Your task to perform on an android device: turn off improve location accuracy Image 0: 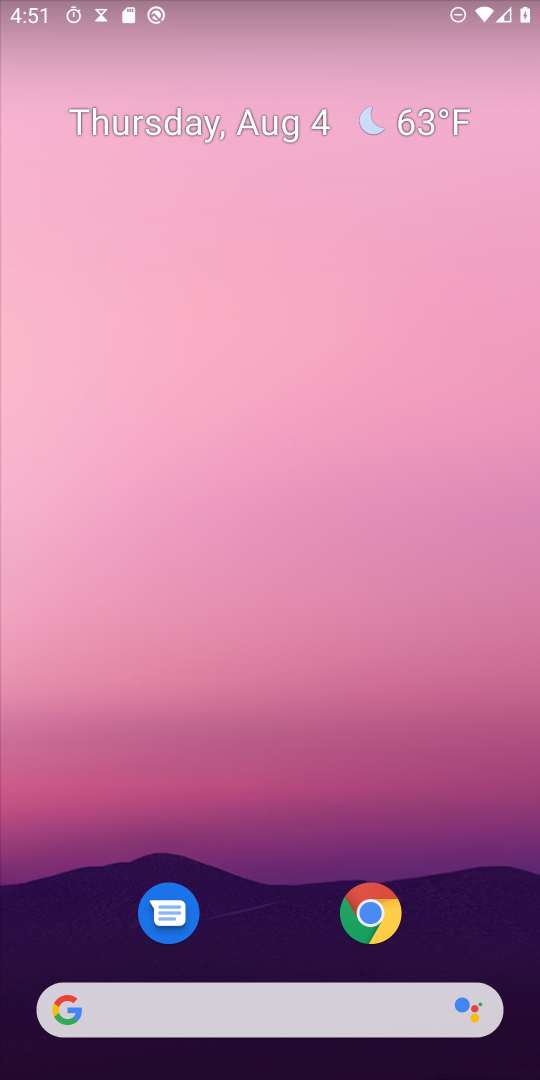
Step 0: drag from (340, 1001) to (367, 33)
Your task to perform on an android device: turn off improve location accuracy Image 1: 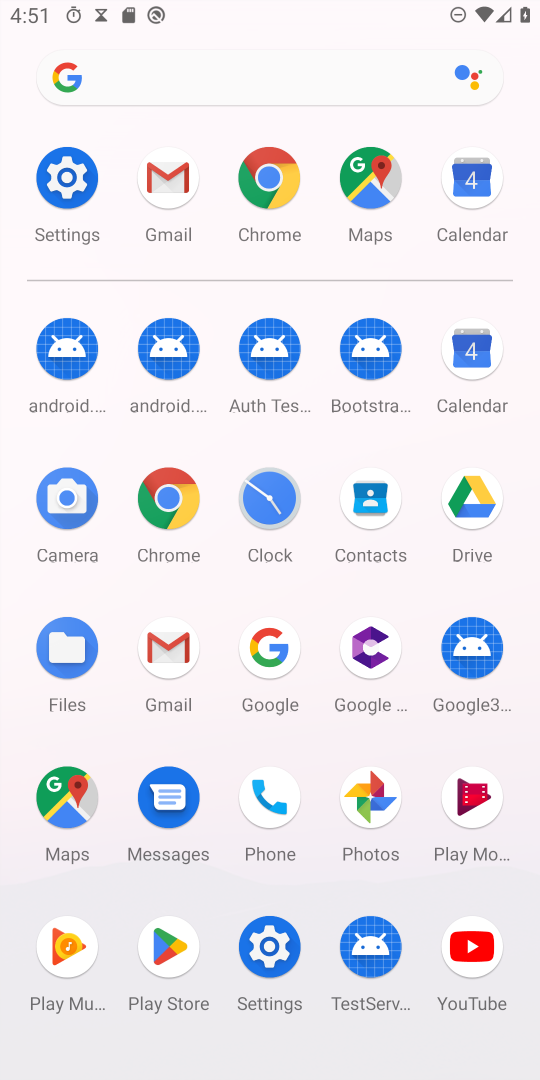
Step 1: click (264, 933)
Your task to perform on an android device: turn off improve location accuracy Image 2: 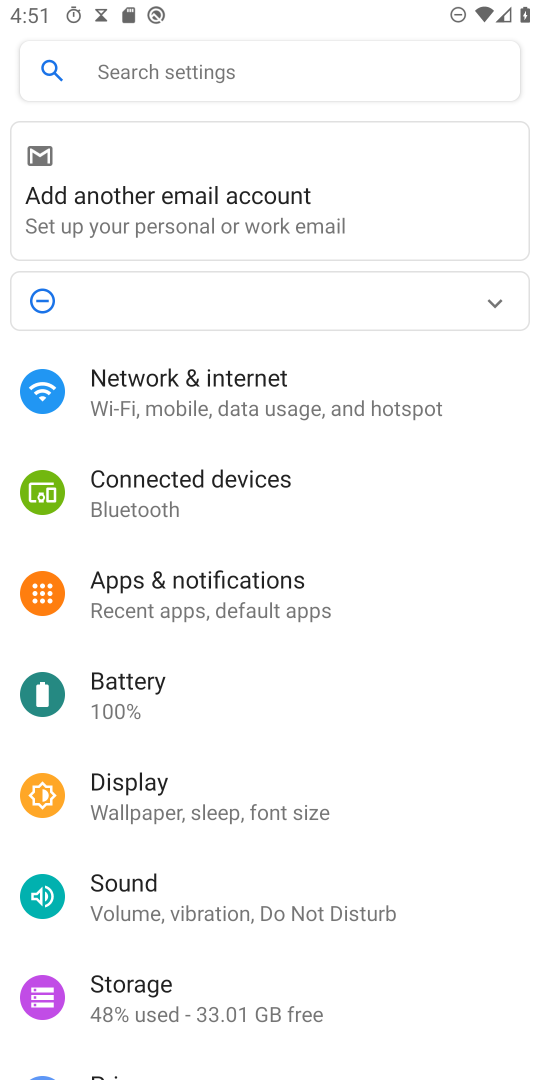
Step 2: drag from (278, 851) to (318, 291)
Your task to perform on an android device: turn off improve location accuracy Image 3: 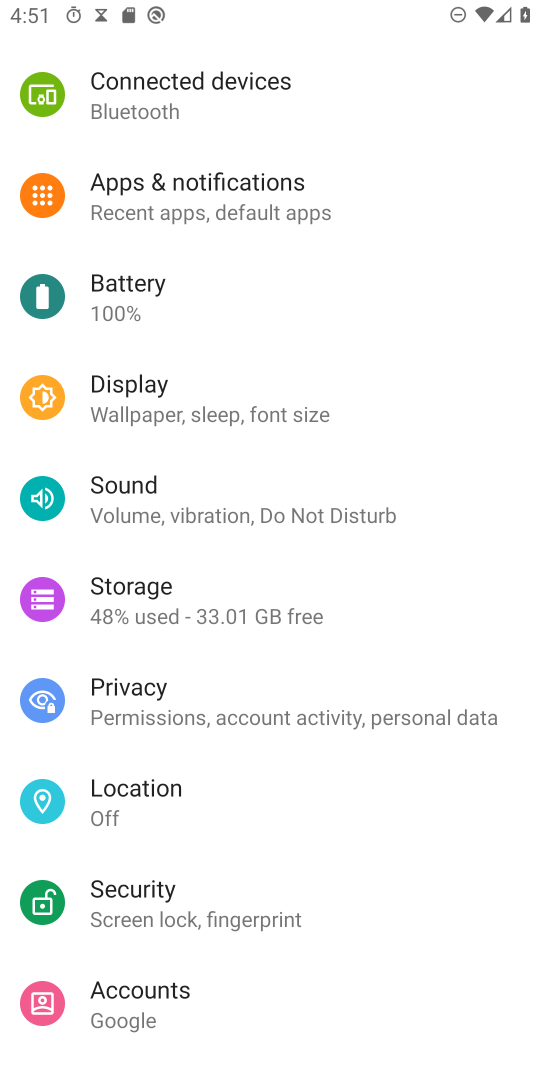
Step 3: click (177, 817)
Your task to perform on an android device: turn off improve location accuracy Image 4: 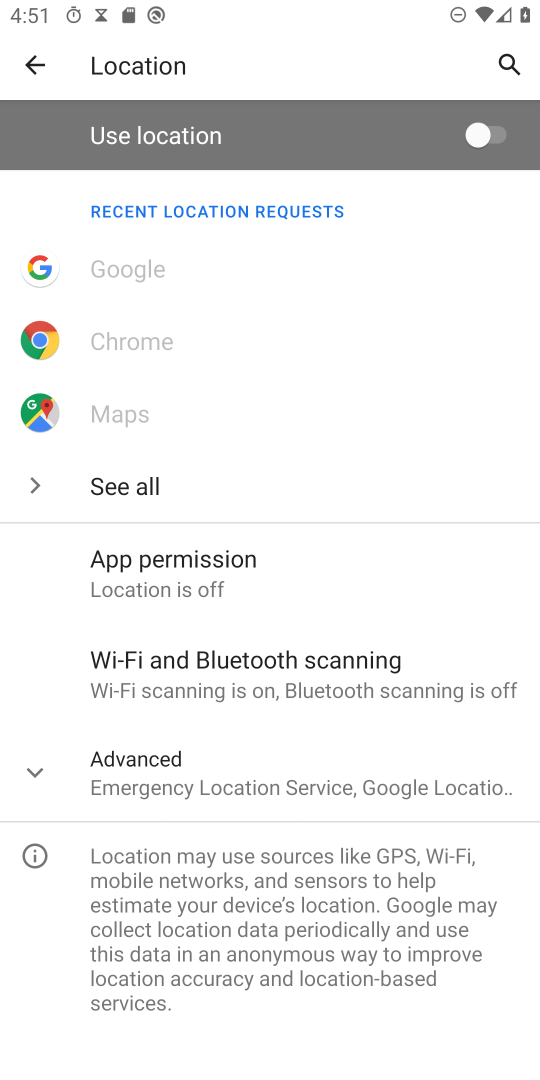
Step 4: click (377, 770)
Your task to perform on an android device: turn off improve location accuracy Image 5: 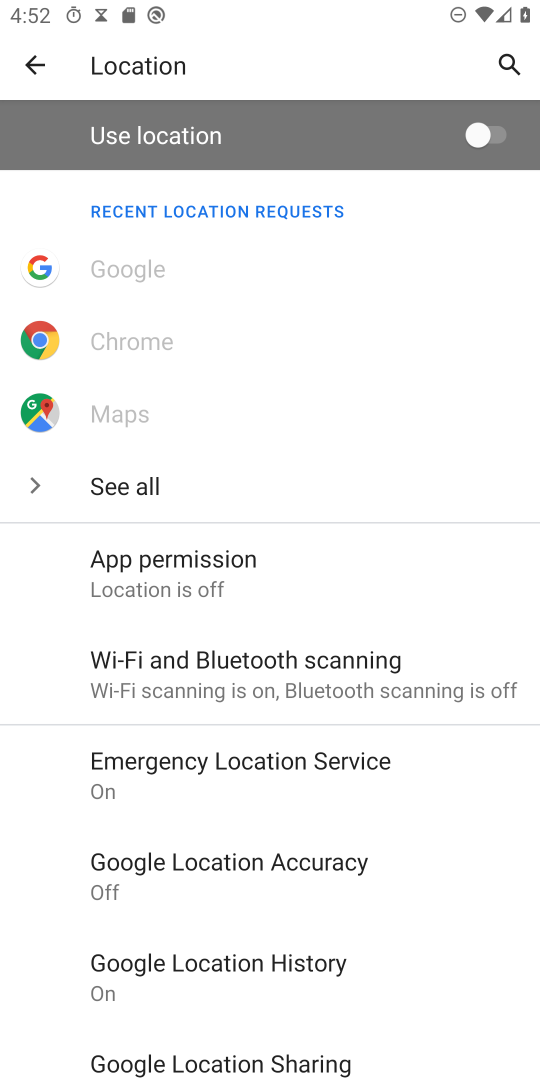
Step 5: click (290, 869)
Your task to perform on an android device: turn off improve location accuracy Image 6: 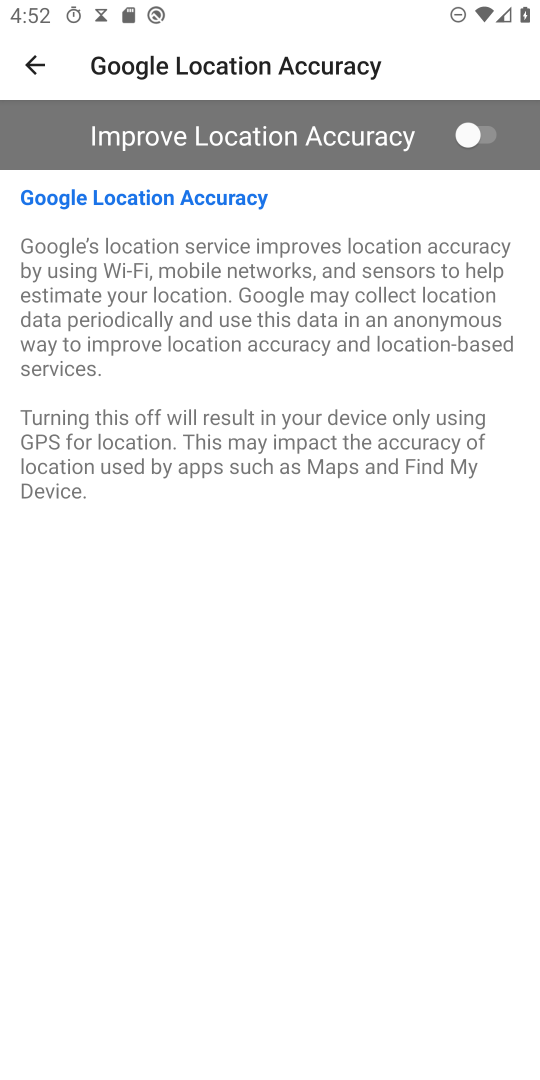
Step 6: task complete